Your task to perform on an android device: turn off javascript in the chrome app Image 0: 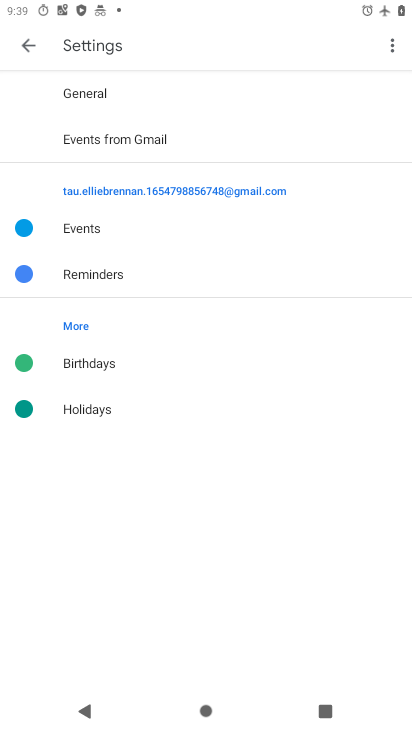
Step 0: press home button
Your task to perform on an android device: turn off javascript in the chrome app Image 1: 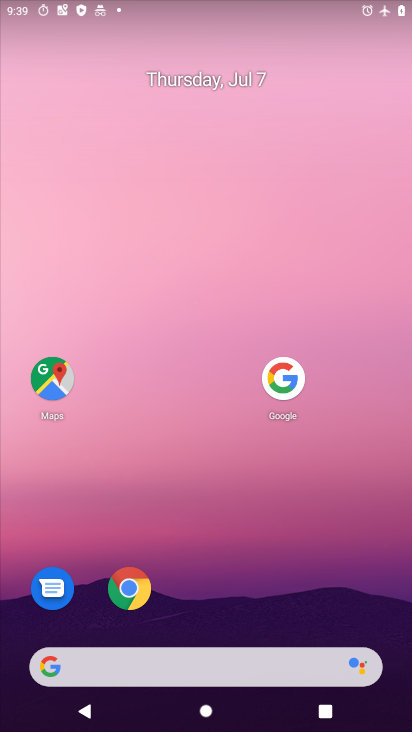
Step 1: click (132, 593)
Your task to perform on an android device: turn off javascript in the chrome app Image 2: 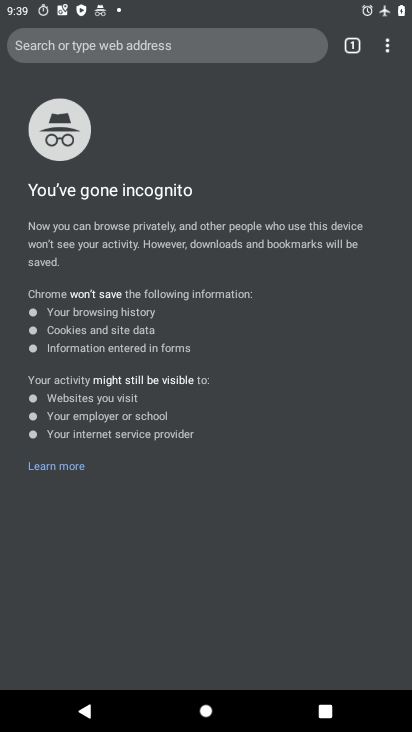
Step 2: click (390, 38)
Your task to perform on an android device: turn off javascript in the chrome app Image 3: 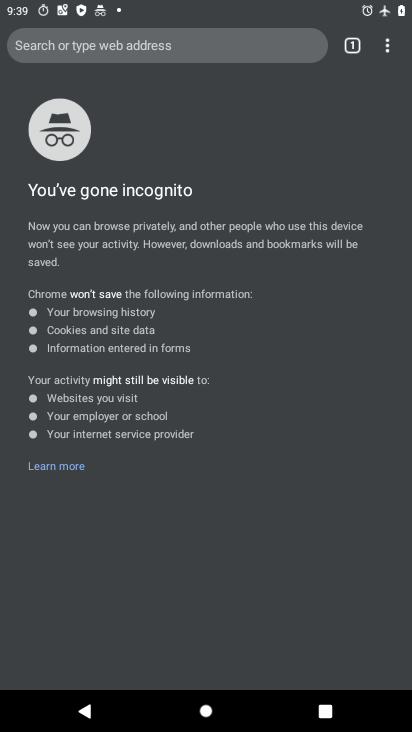
Step 3: click (388, 59)
Your task to perform on an android device: turn off javascript in the chrome app Image 4: 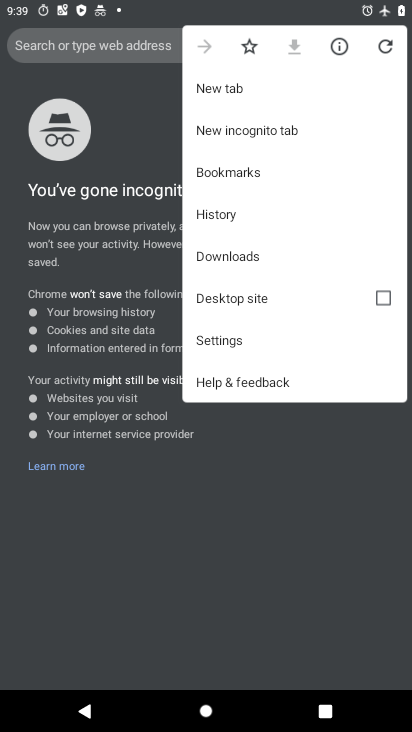
Step 4: click (230, 85)
Your task to perform on an android device: turn off javascript in the chrome app Image 5: 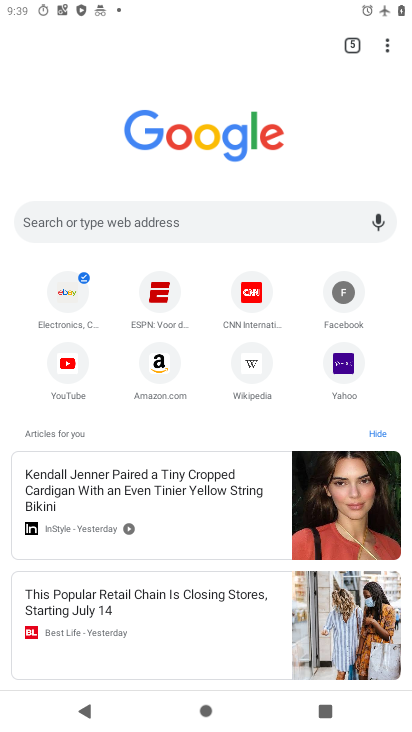
Step 5: drag from (386, 46) to (234, 388)
Your task to perform on an android device: turn off javascript in the chrome app Image 6: 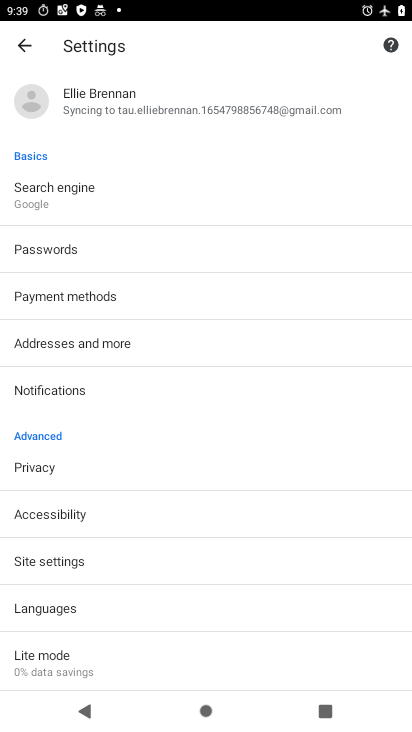
Step 6: click (60, 567)
Your task to perform on an android device: turn off javascript in the chrome app Image 7: 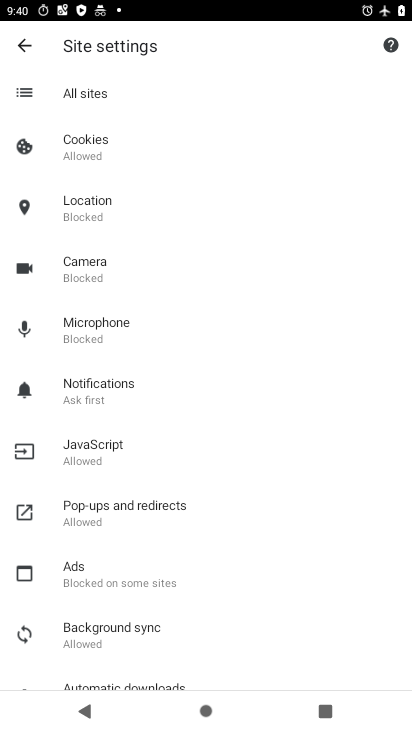
Step 7: click (84, 442)
Your task to perform on an android device: turn off javascript in the chrome app Image 8: 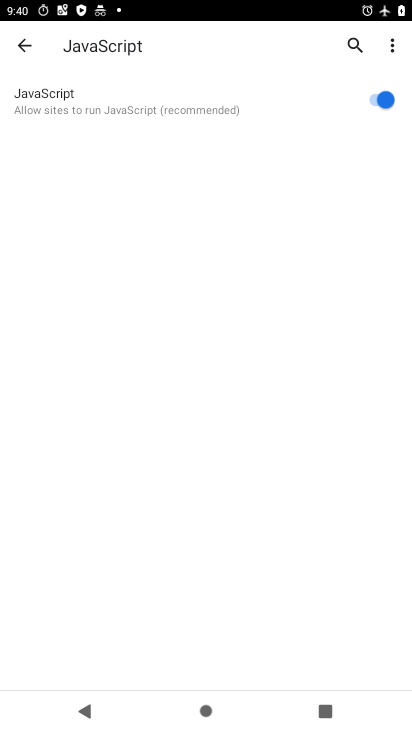
Step 8: click (373, 96)
Your task to perform on an android device: turn off javascript in the chrome app Image 9: 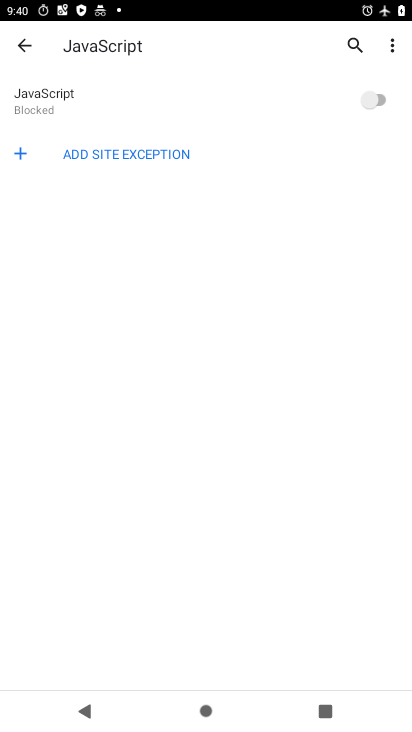
Step 9: task complete